Your task to perform on an android device: check data usage Image 0: 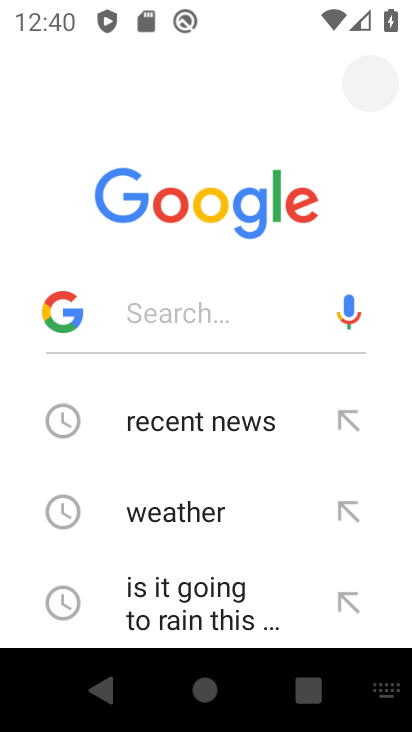
Step 0: click (104, 219)
Your task to perform on an android device: check data usage Image 1: 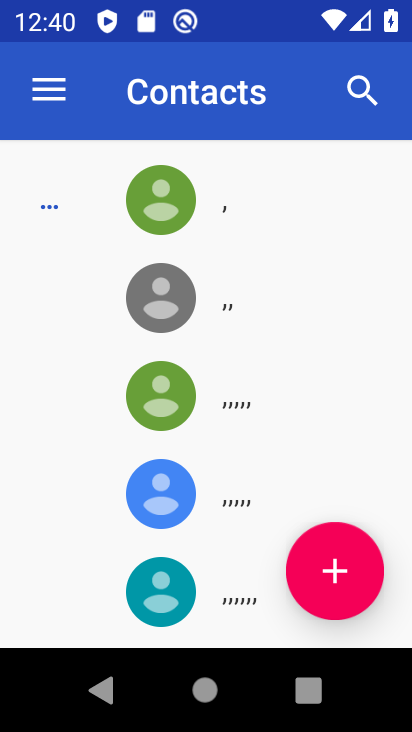
Step 1: press back button
Your task to perform on an android device: check data usage Image 2: 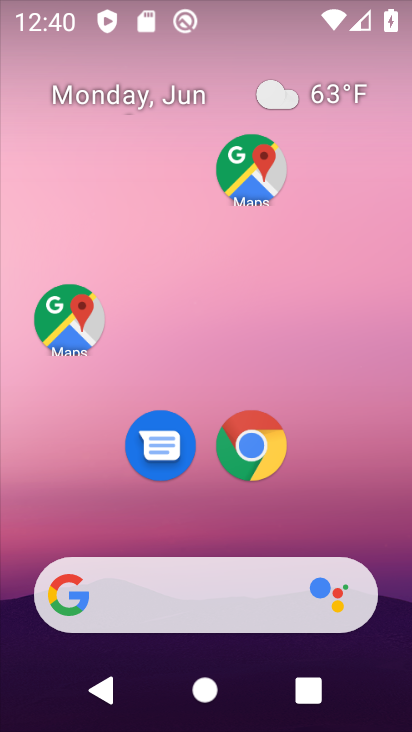
Step 2: drag from (218, 681) to (239, 126)
Your task to perform on an android device: check data usage Image 3: 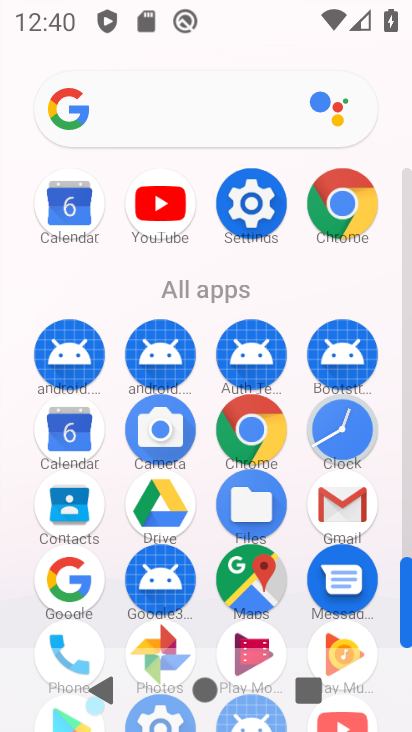
Step 3: click (244, 202)
Your task to perform on an android device: check data usage Image 4: 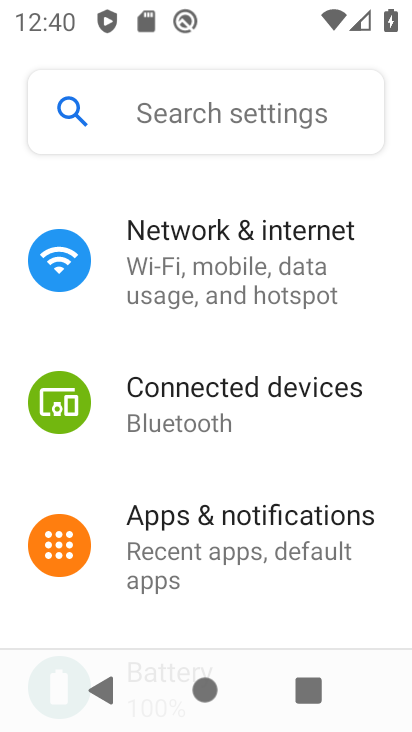
Step 4: click (244, 202)
Your task to perform on an android device: check data usage Image 5: 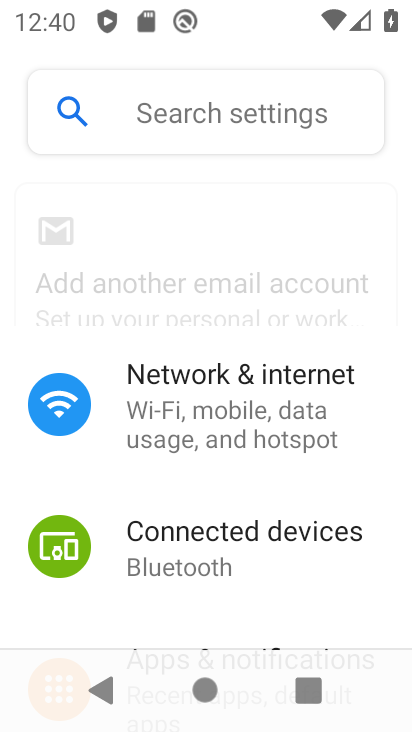
Step 5: click (244, 202)
Your task to perform on an android device: check data usage Image 6: 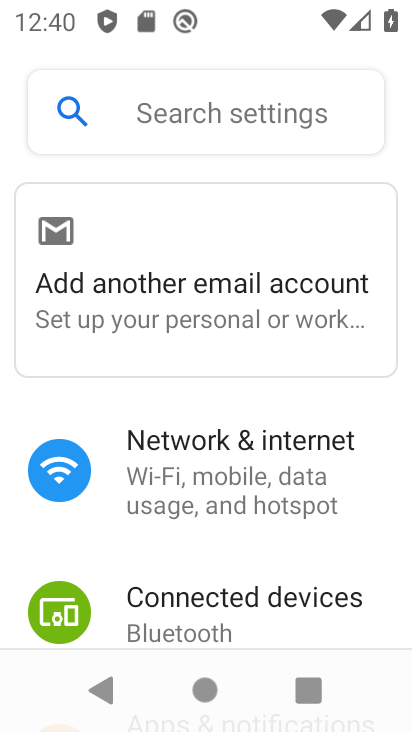
Step 6: click (232, 477)
Your task to perform on an android device: check data usage Image 7: 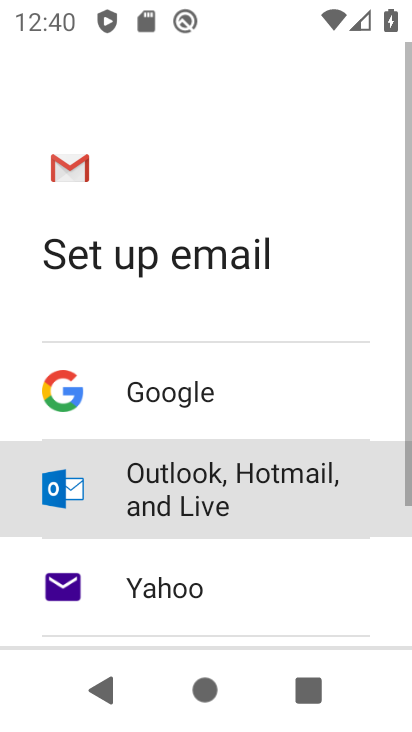
Step 7: click (233, 474)
Your task to perform on an android device: check data usage Image 8: 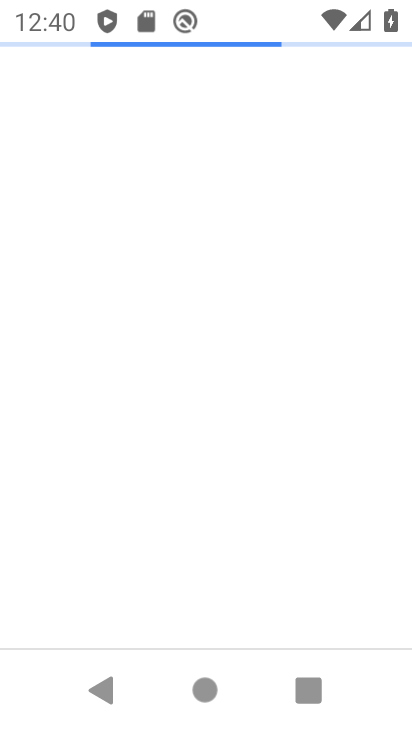
Step 8: press back button
Your task to perform on an android device: check data usage Image 9: 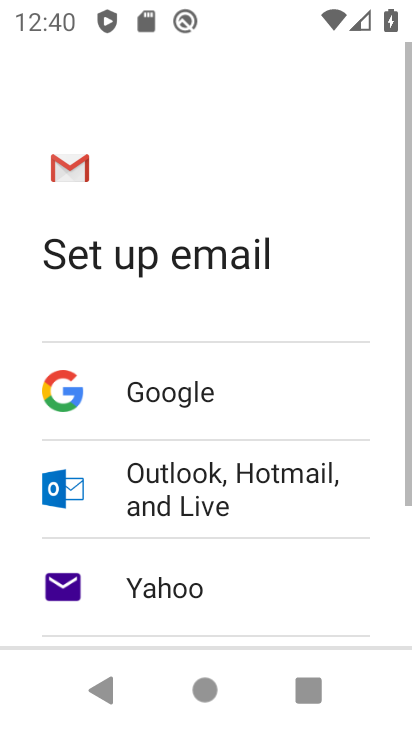
Step 9: press home button
Your task to perform on an android device: check data usage Image 10: 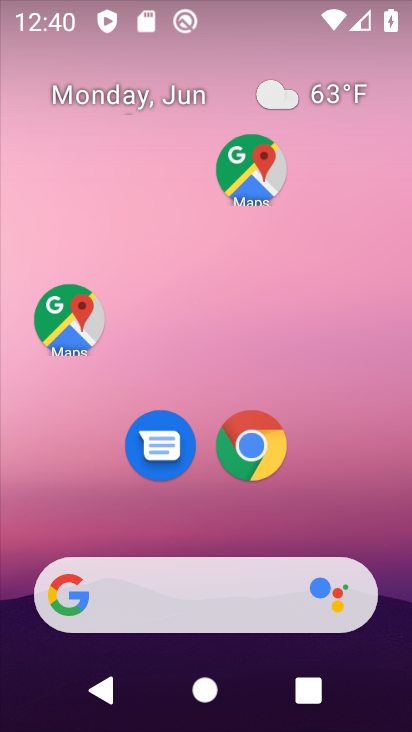
Step 10: drag from (214, 532) to (112, 182)
Your task to perform on an android device: check data usage Image 11: 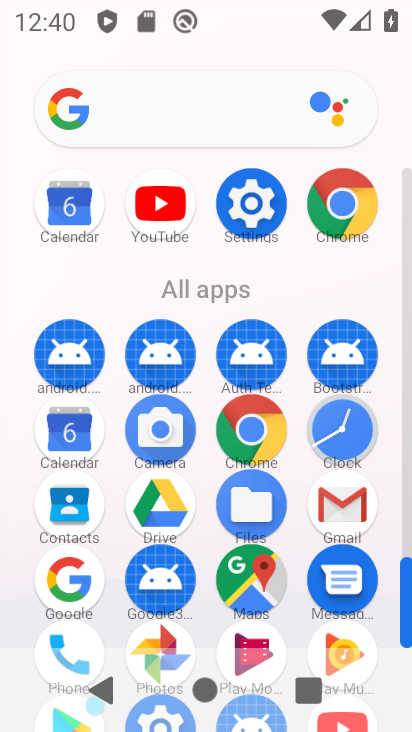
Step 11: click (249, 222)
Your task to perform on an android device: check data usage Image 12: 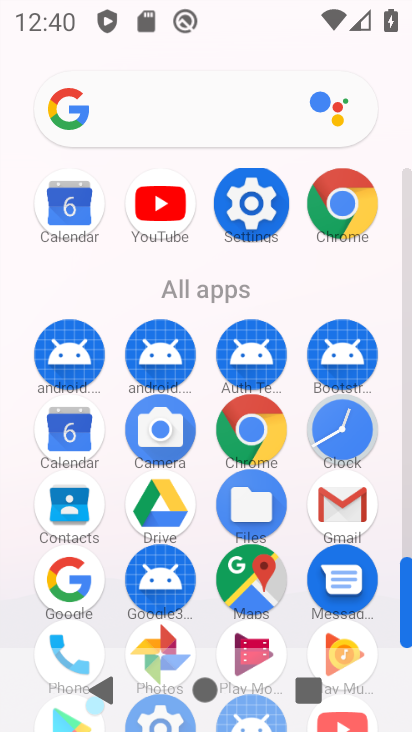
Step 12: click (249, 222)
Your task to perform on an android device: check data usage Image 13: 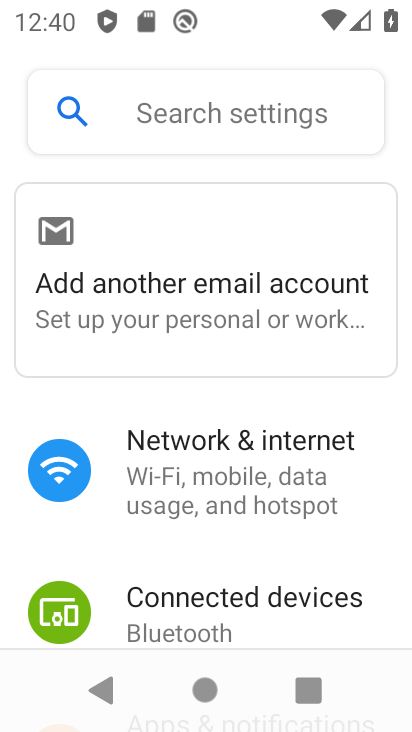
Step 13: drag from (234, 508) to (224, 222)
Your task to perform on an android device: check data usage Image 14: 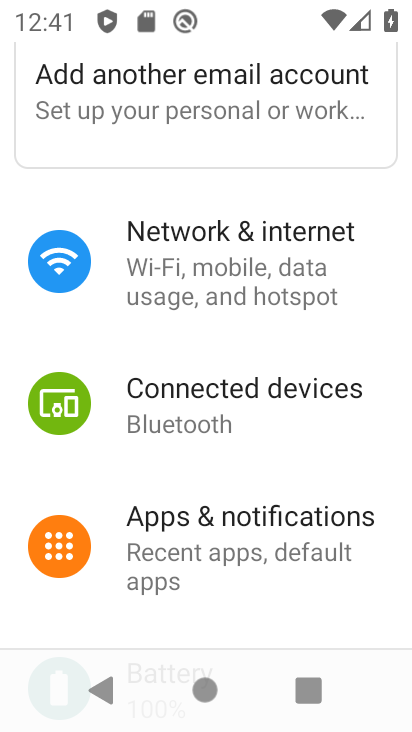
Step 14: click (215, 285)
Your task to perform on an android device: check data usage Image 15: 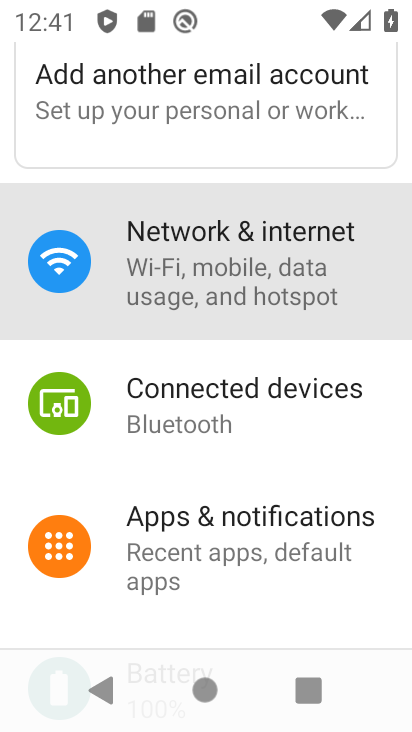
Step 15: click (214, 283)
Your task to perform on an android device: check data usage Image 16: 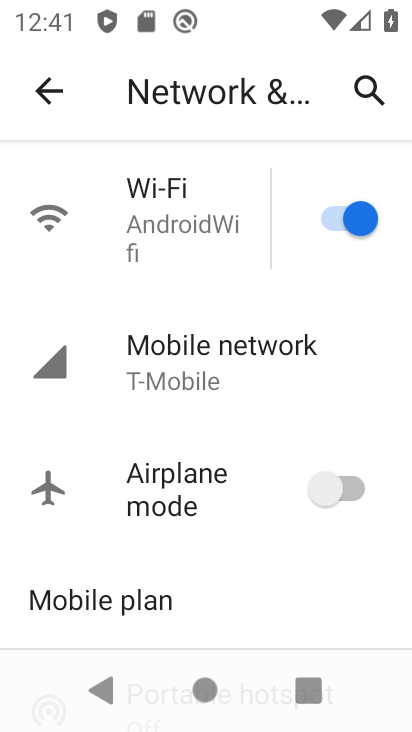
Step 16: task complete